Your task to perform on an android device: Open Yahoo.com Image 0: 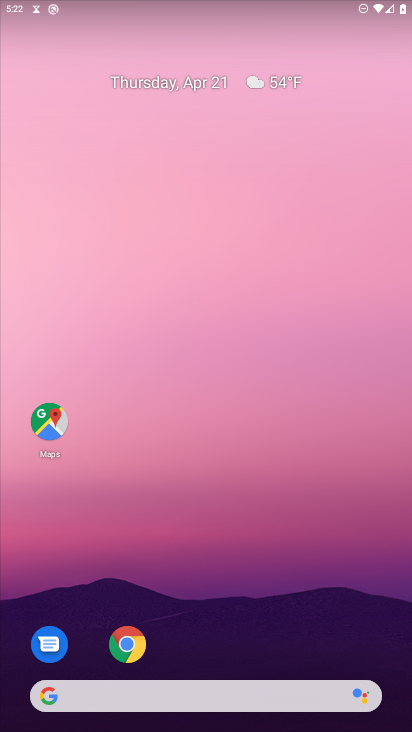
Step 0: drag from (219, 560) to (216, 362)
Your task to perform on an android device: Open Yahoo.com Image 1: 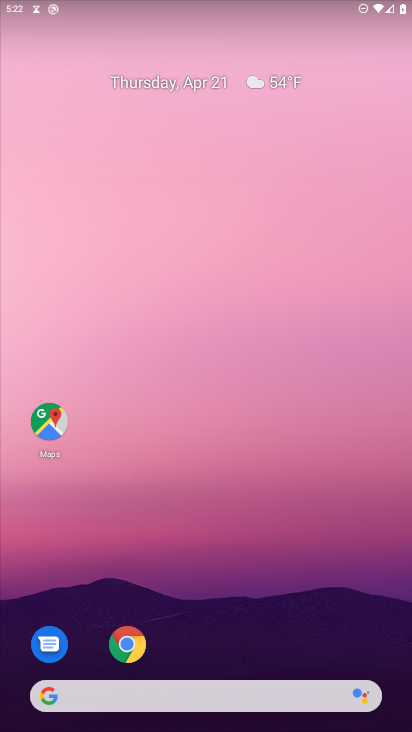
Step 1: drag from (223, 670) to (222, 248)
Your task to perform on an android device: Open Yahoo.com Image 2: 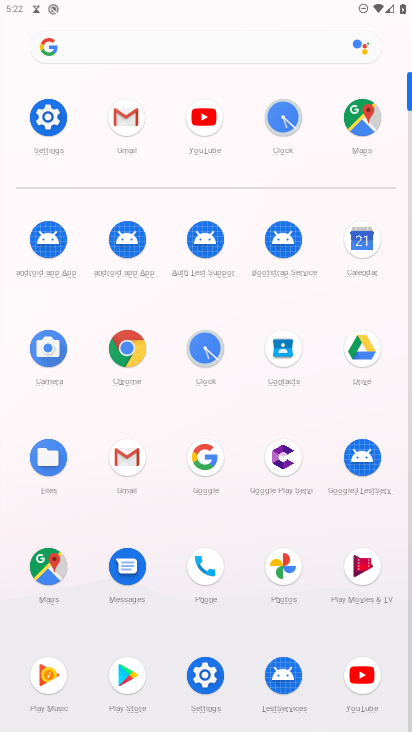
Step 2: click (123, 359)
Your task to perform on an android device: Open Yahoo.com Image 3: 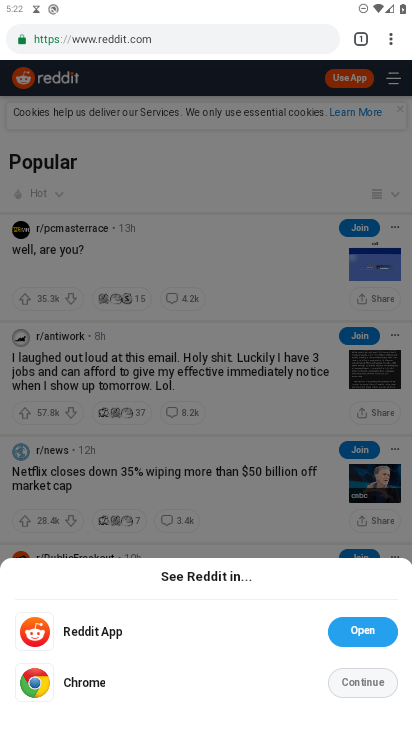
Step 3: click (360, 34)
Your task to perform on an android device: Open Yahoo.com Image 4: 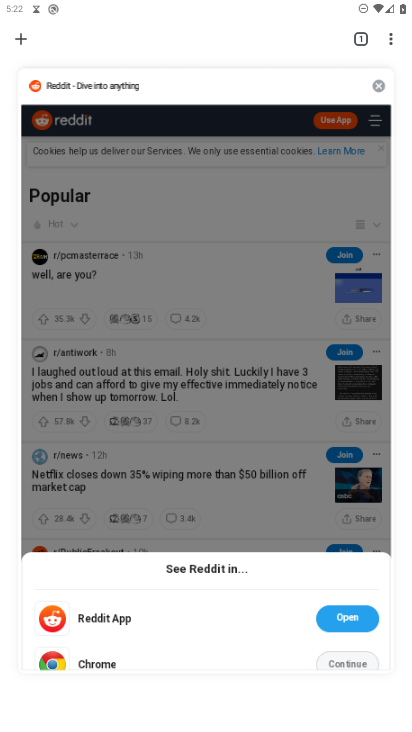
Step 4: click (370, 85)
Your task to perform on an android device: Open Yahoo.com Image 5: 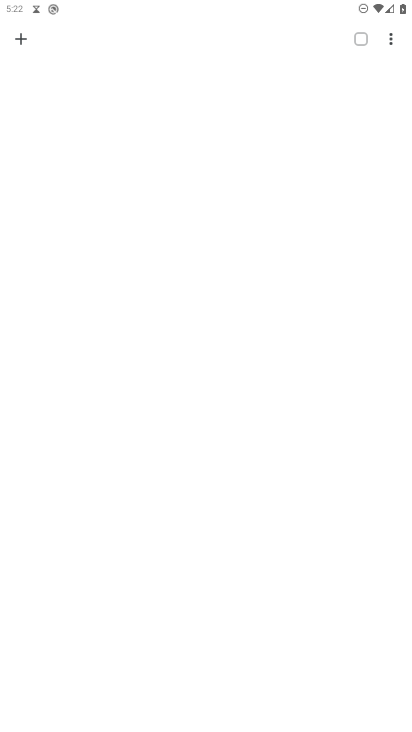
Step 5: click (24, 38)
Your task to perform on an android device: Open Yahoo.com Image 6: 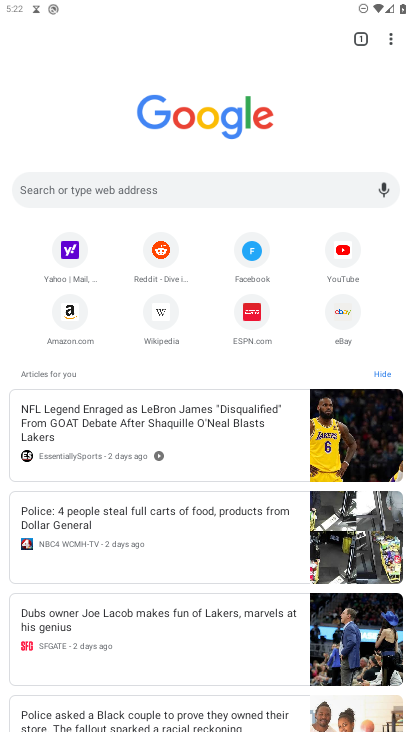
Step 6: click (60, 257)
Your task to perform on an android device: Open Yahoo.com Image 7: 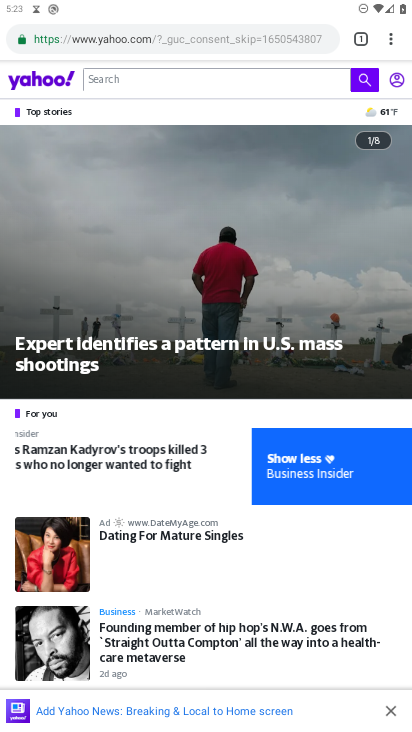
Step 7: task complete